Your task to perform on an android device: What is the recent news? Image 0: 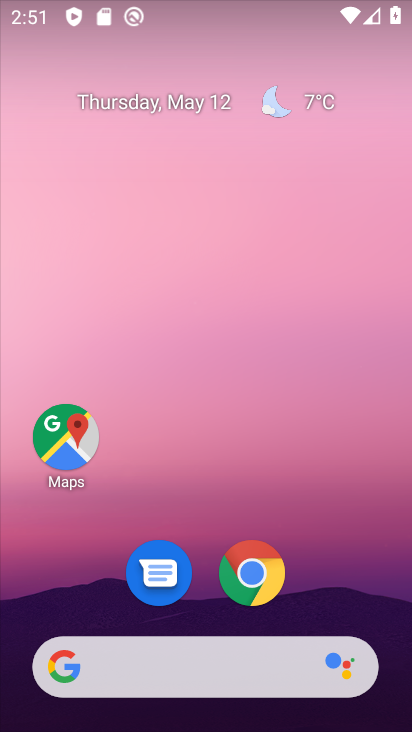
Step 0: drag from (210, 586) to (170, 8)
Your task to perform on an android device: What is the recent news? Image 1: 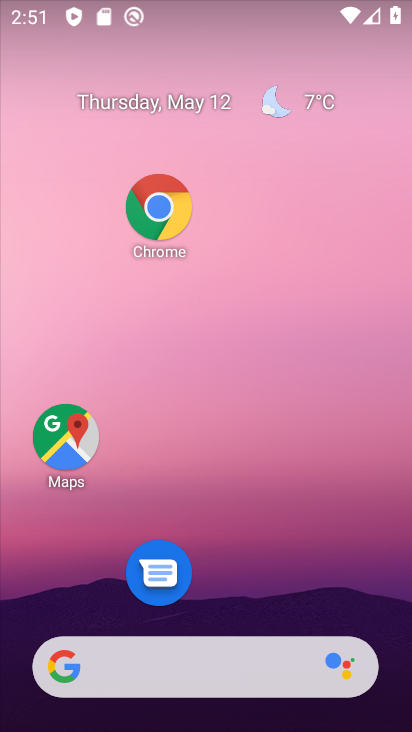
Step 1: click (215, 653)
Your task to perform on an android device: What is the recent news? Image 2: 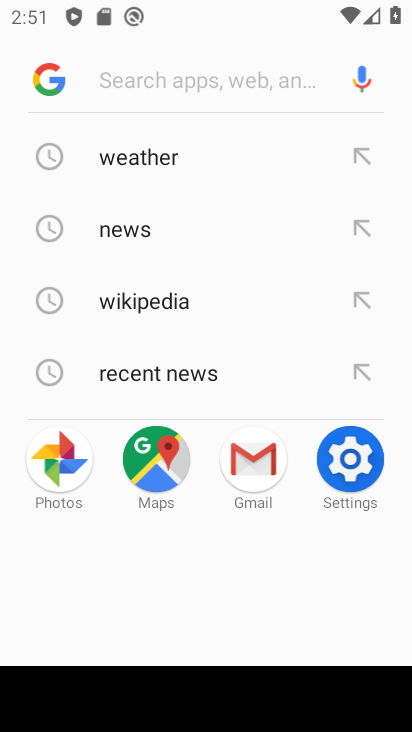
Step 2: type "recent news"
Your task to perform on an android device: What is the recent news? Image 3: 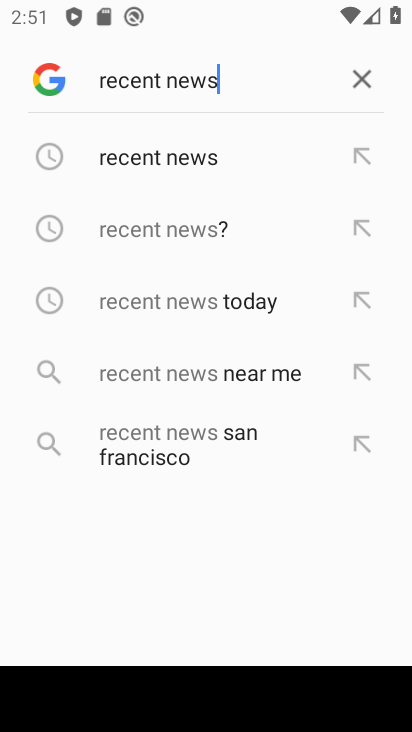
Step 3: click (222, 226)
Your task to perform on an android device: What is the recent news? Image 4: 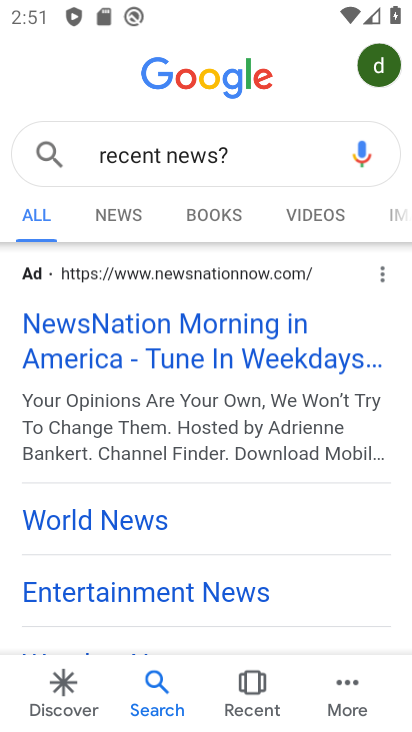
Step 4: task complete